Your task to perform on an android device: Open Chrome and go to settings Image 0: 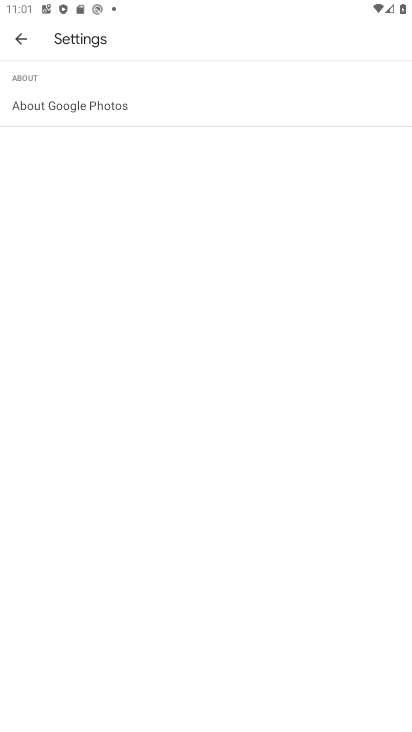
Step 0: press home button
Your task to perform on an android device: Open Chrome and go to settings Image 1: 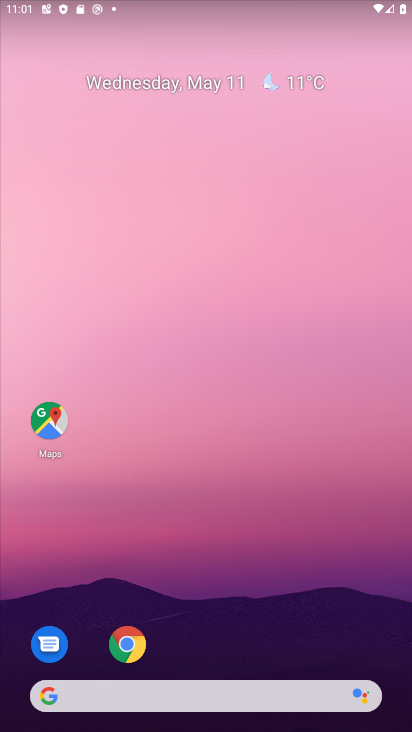
Step 1: click (127, 632)
Your task to perform on an android device: Open Chrome and go to settings Image 2: 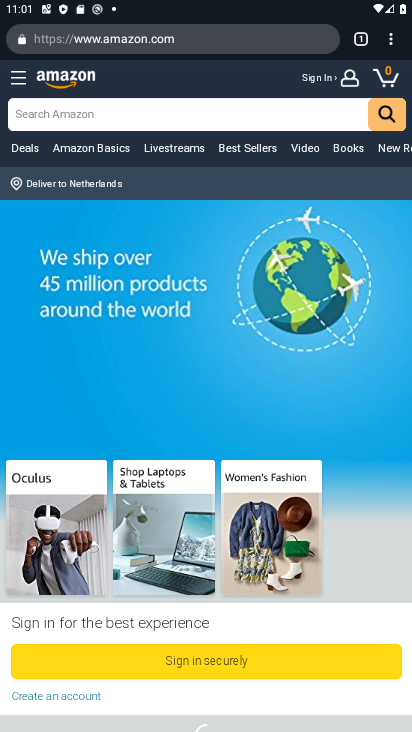
Step 2: click (393, 38)
Your task to perform on an android device: Open Chrome and go to settings Image 3: 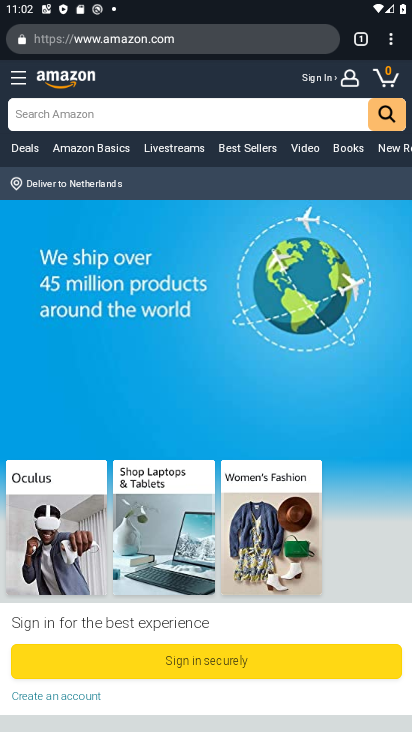
Step 3: click (393, 43)
Your task to perform on an android device: Open Chrome and go to settings Image 4: 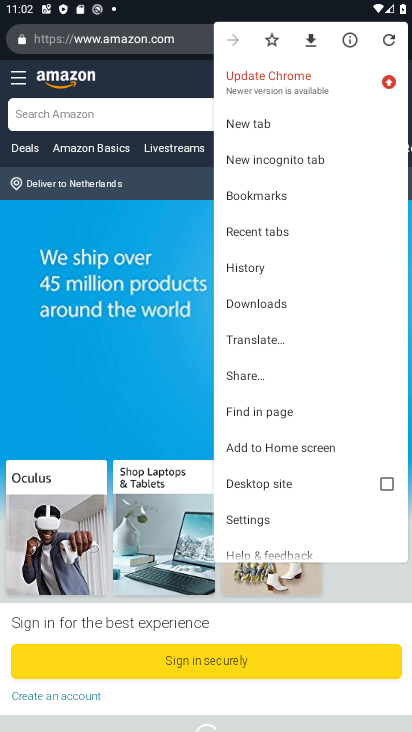
Step 4: click (275, 516)
Your task to perform on an android device: Open Chrome and go to settings Image 5: 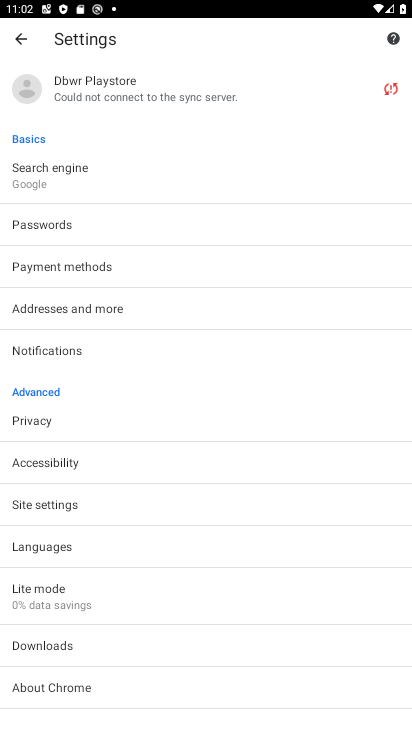
Step 5: task complete